Your task to perform on an android device: Open the calendar app, open the side menu, and click the "Day" option Image 0: 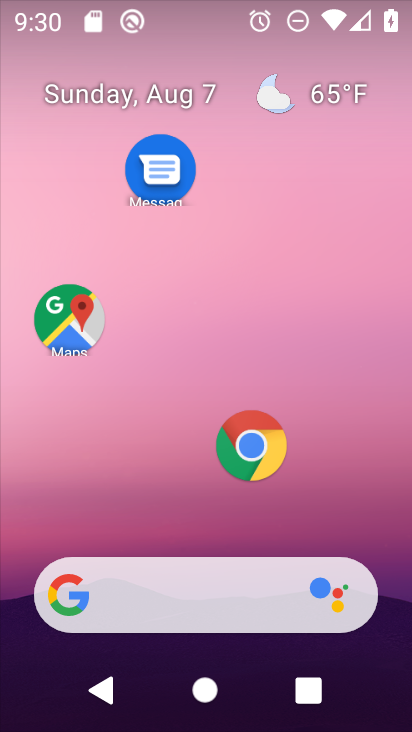
Step 0: press home button
Your task to perform on an android device: Open the calendar app, open the side menu, and click the "Day" option Image 1: 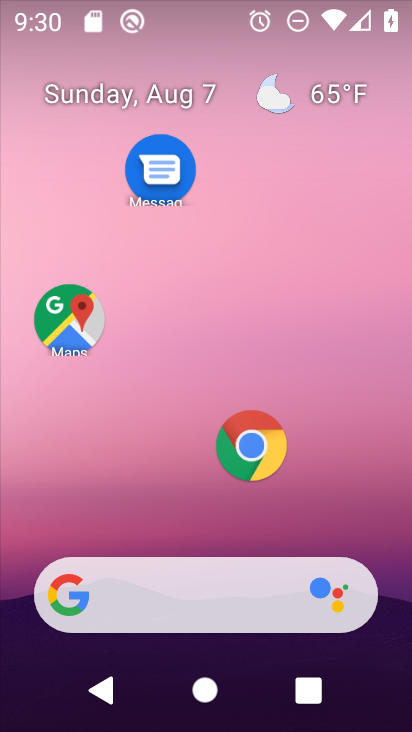
Step 1: drag from (189, 525) to (190, 62)
Your task to perform on an android device: Open the calendar app, open the side menu, and click the "Day" option Image 2: 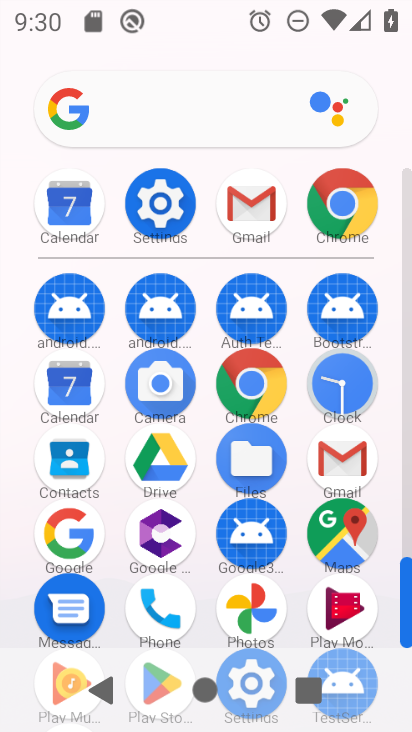
Step 2: click (68, 382)
Your task to perform on an android device: Open the calendar app, open the side menu, and click the "Day" option Image 3: 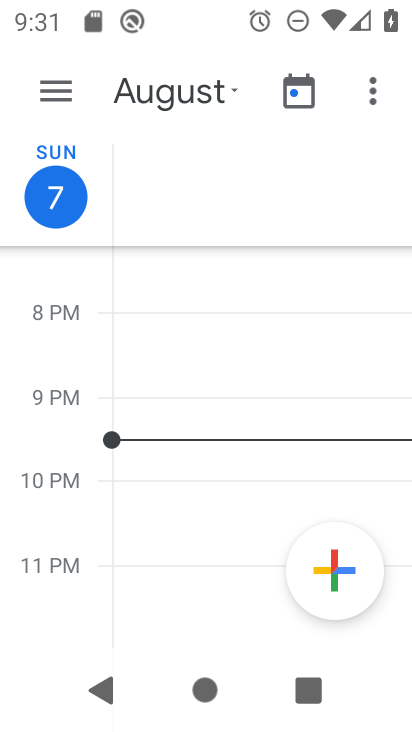
Step 3: click (50, 90)
Your task to perform on an android device: Open the calendar app, open the side menu, and click the "Day" option Image 4: 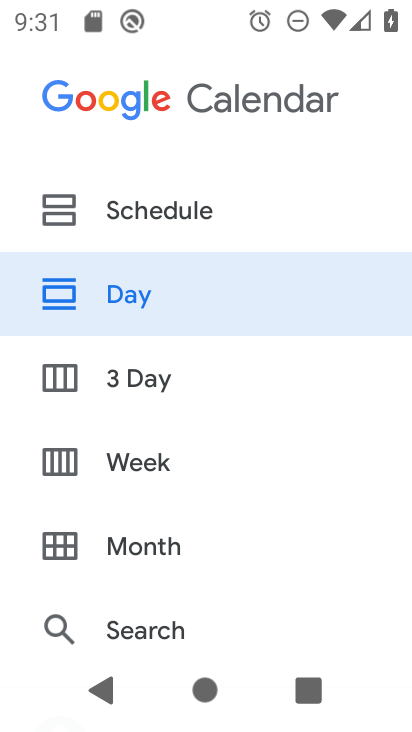
Step 4: click (118, 297)
Your task to perform on an android device: Open the calendar app, open the side menu, and click the "Day" option Image 5: 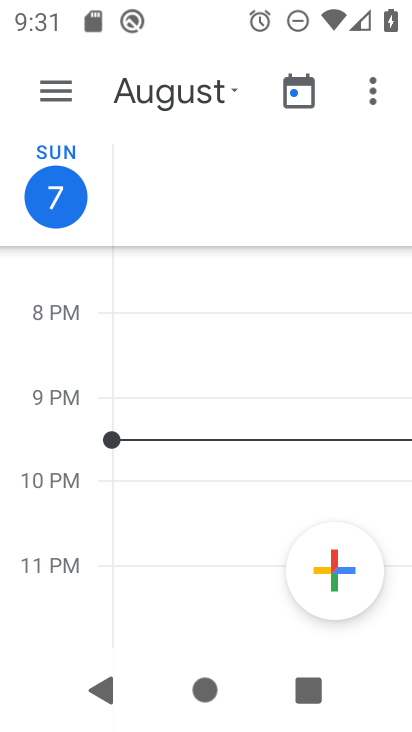
Step 5: task complete